Your task to perform on an android device: find photos in the google photos app Image 0: 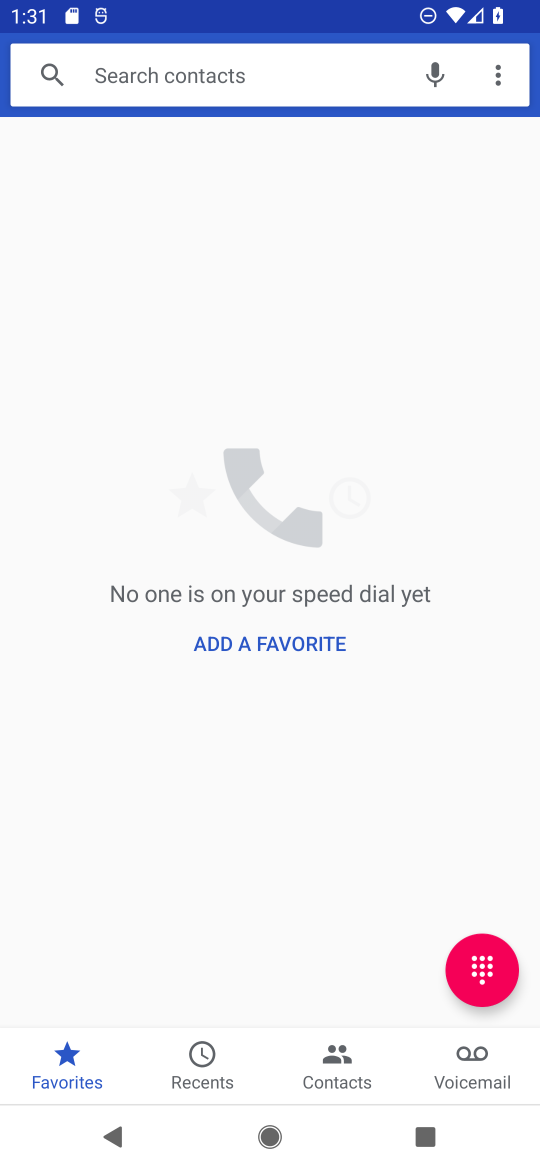
Step 0: press home button
Your task to perform on an android device: find photos in the google photos app Image 1: 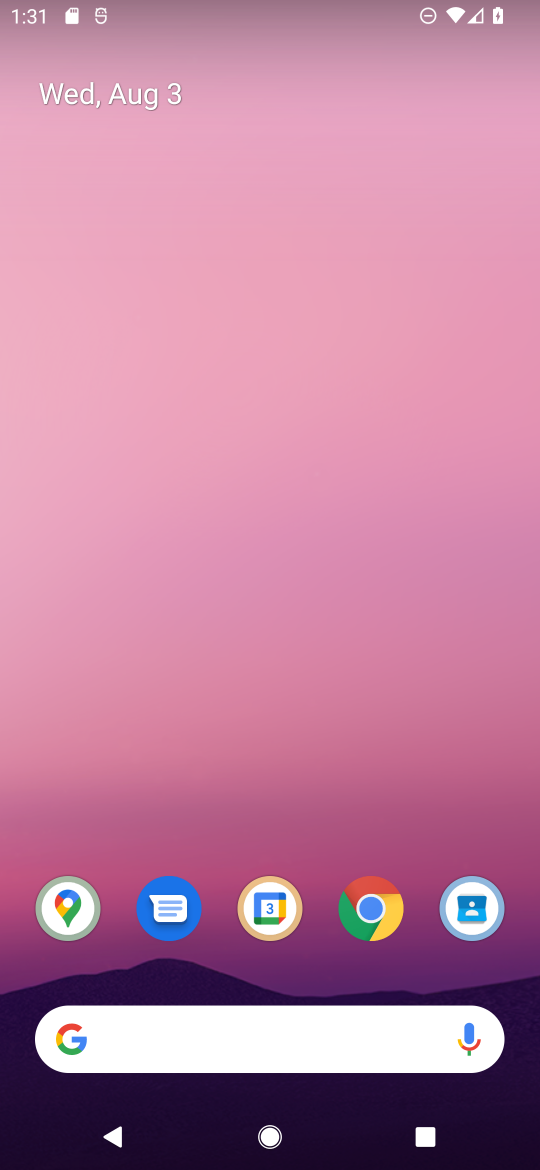
Step 1: drag from (208, 898) to (253, 249)
Your task to perform on an android device: find photos in the google photos app Image 2: 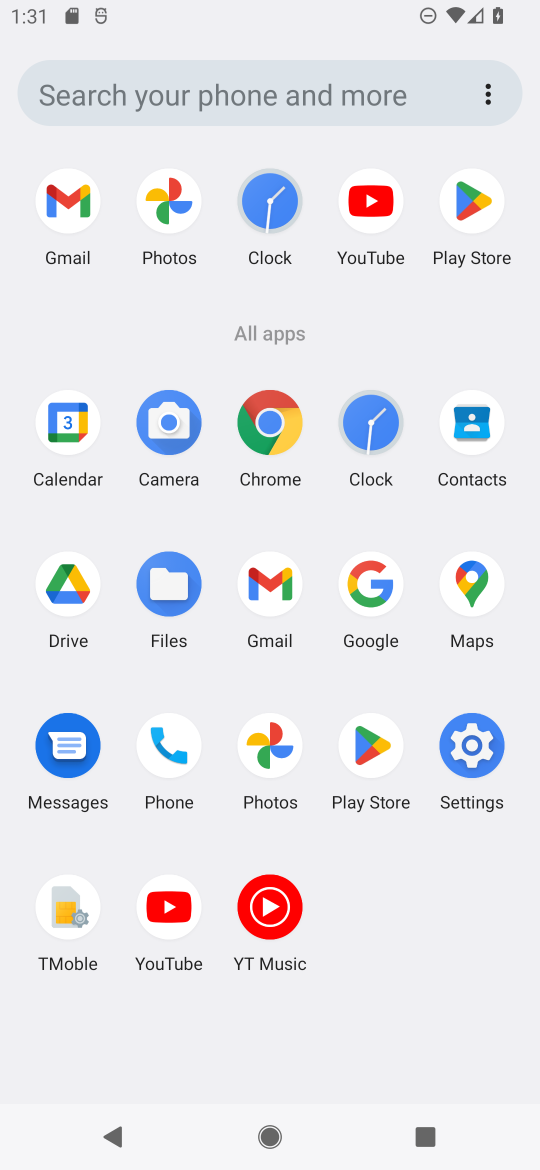
Step 2: click (279, 778)
Your task to perform on an android device: find photos in the google photos app Image 3: 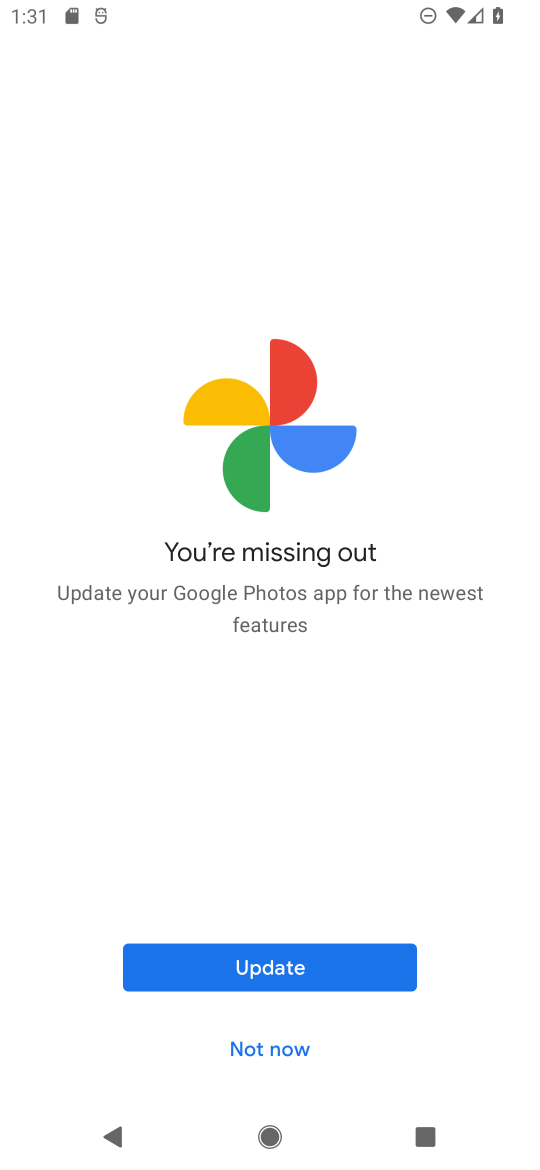
Step 3: click (194, 1052)
Your task to perform on an android device: find photos in the google photos app Image 4: 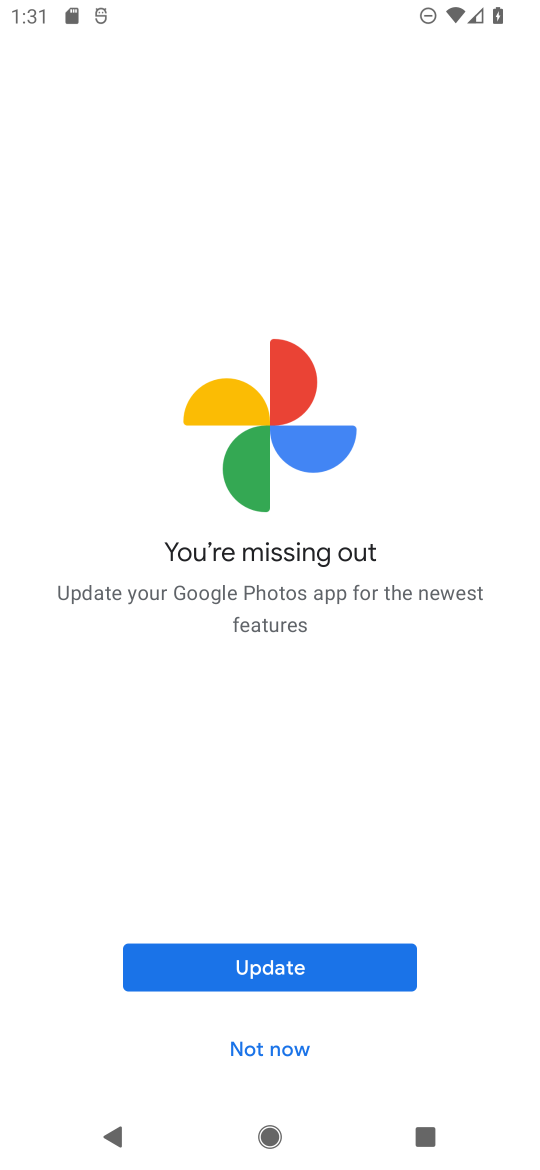
Step 4: click (278, 1052)
Your task to perform on an android device: find photos in the google photos app Image 5: 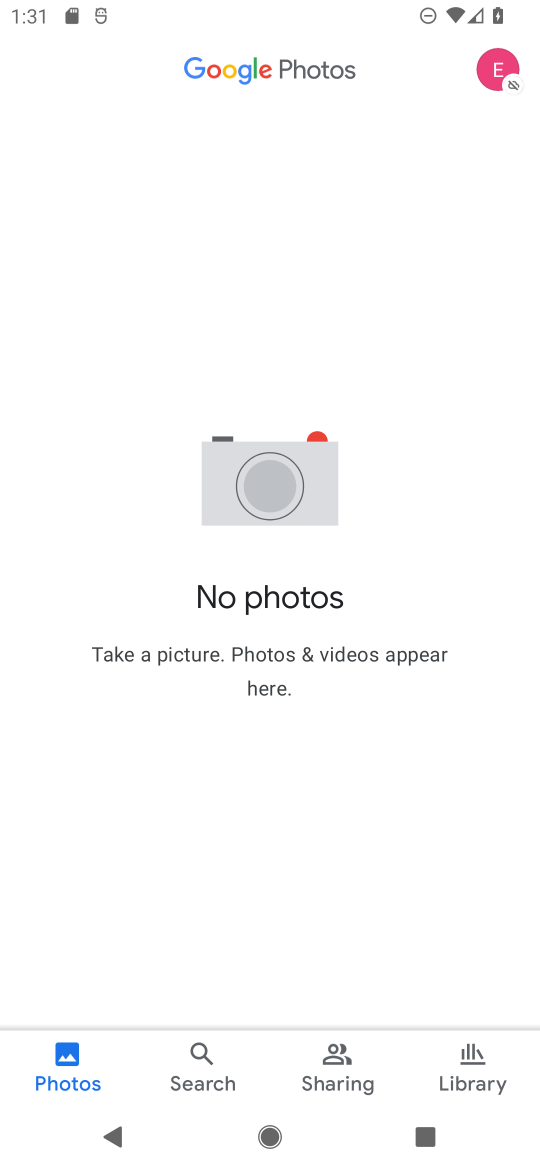
Step 5: click (482, 1071)
Your task to perform on an android device: find photos in the google photos app Image 6: 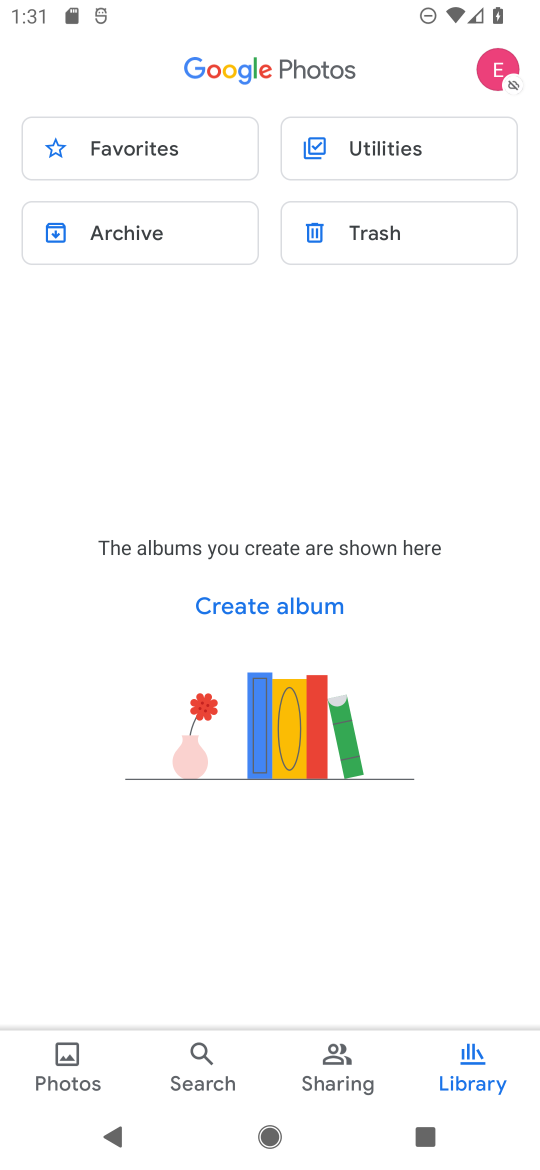
Step 6: click (202, 1075)
Your task to perform on an android device: find photos in the google photos app Image 7: 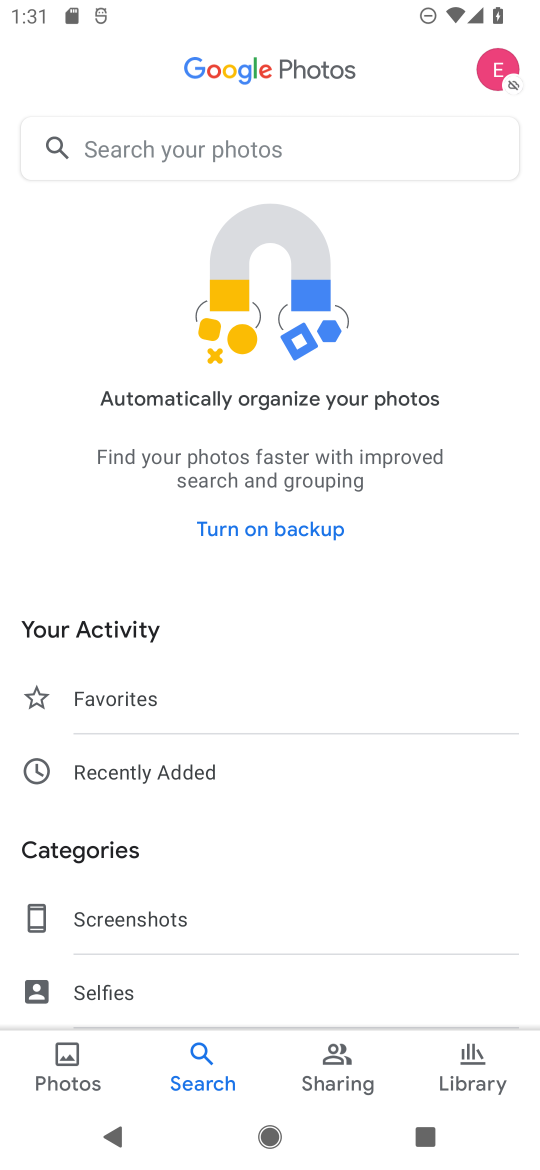
Step 7: click (43, 1068)
Your task to perform on an android device: find photos in the google photos app Image 8: 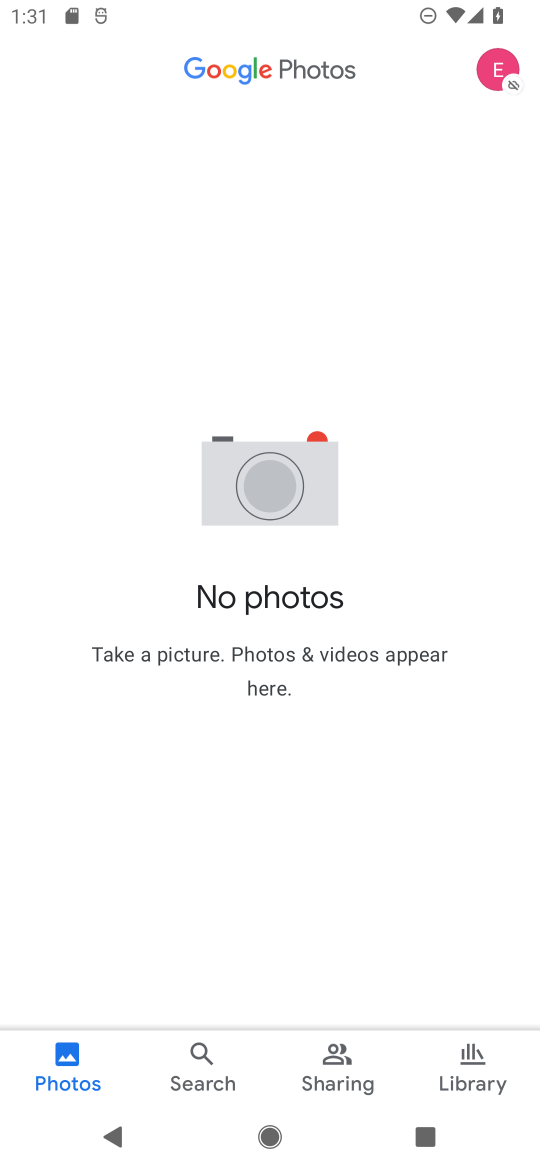
Step 8: task complete